Your task to perform on an android device: change notifications settings Image 0: 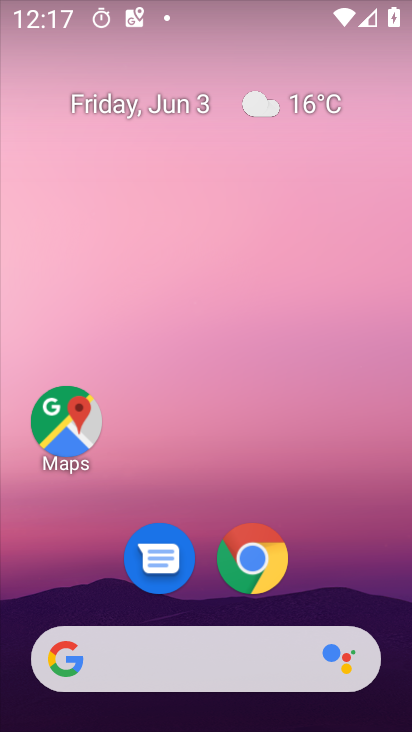
Step 0: drag from (344, 557) to (348, 268)
Your task to perform on an android device: change notifications settings Image 1: 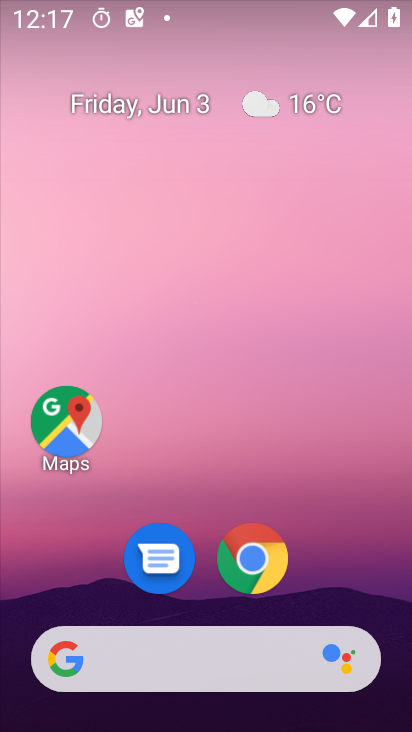
Step 1: drag from (349, 566) to (350, 248)
Your task to perform on an android device: change notifications settings Image 2: 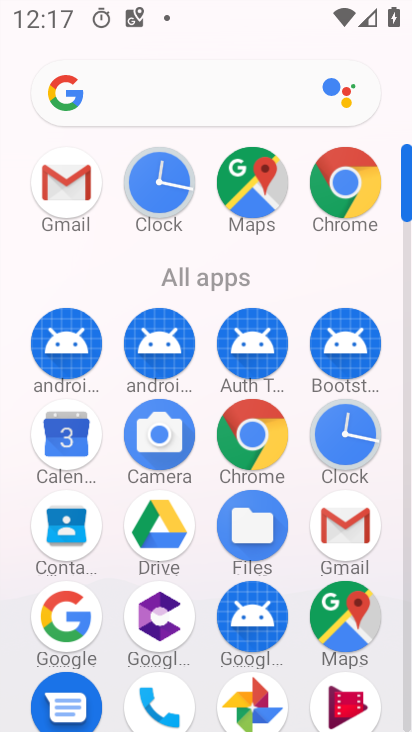
Step 2: drag from (297, 569) to (307, 305)
Your task to perform on an android device: change notifications settings Image 3: 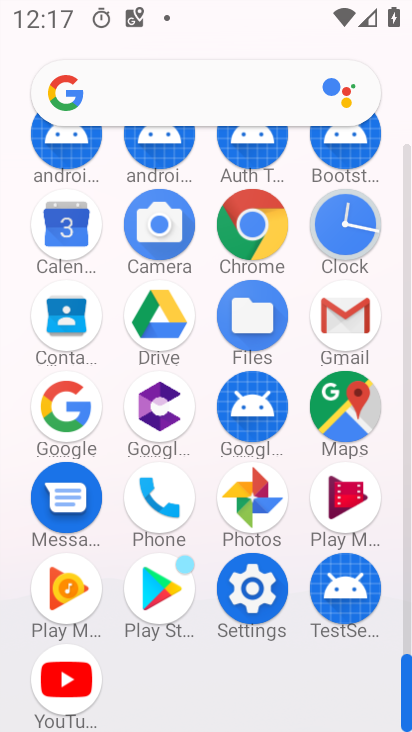
Step 3: click (254, 603)
Your task to perform on an android device: change notifications settings Image 4: 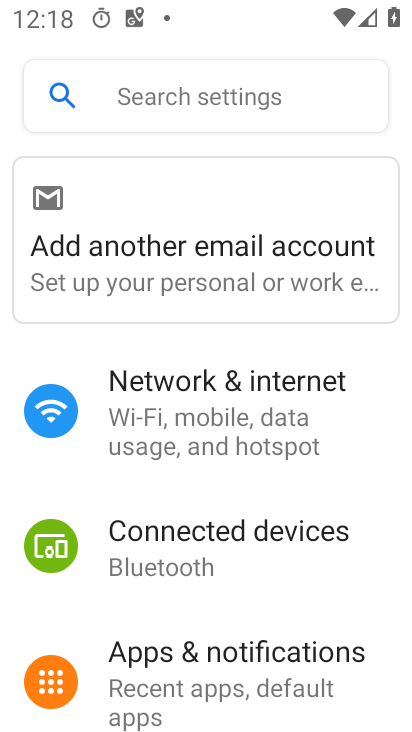
Step 4: drag from (360, 583) to (374, 450)
Your task to perform on an android device: change notifications settings Image 5: 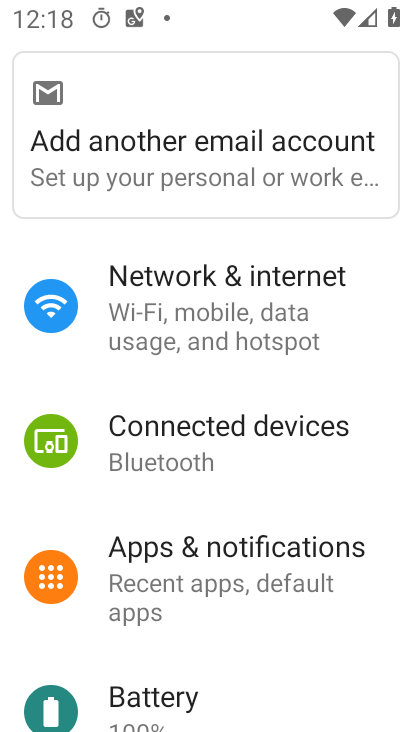
Step 5: drag from (340, 626) to (331, 461)
Your task to perform on an android device: change notifications settings Image 6: 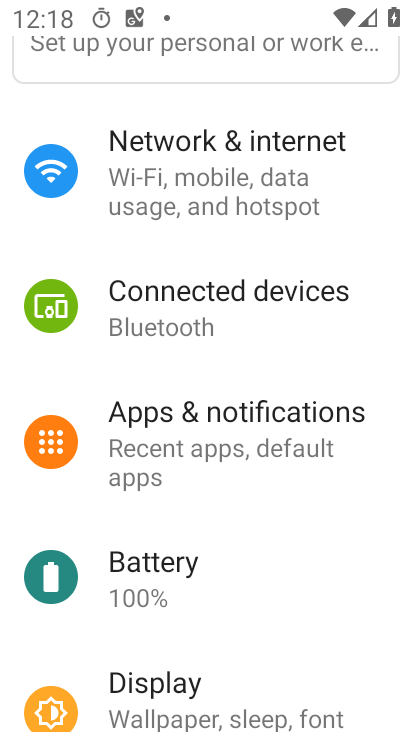
Step 6: click (272, 436)
Your task to perform on an android device: change notifications settings Image 7: 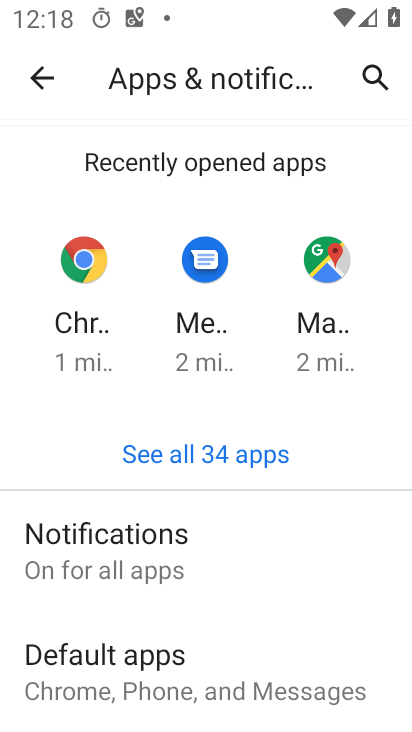
Step 7: click (167, 555)
Your task to perform on an android device: change notifications settings Image 8: 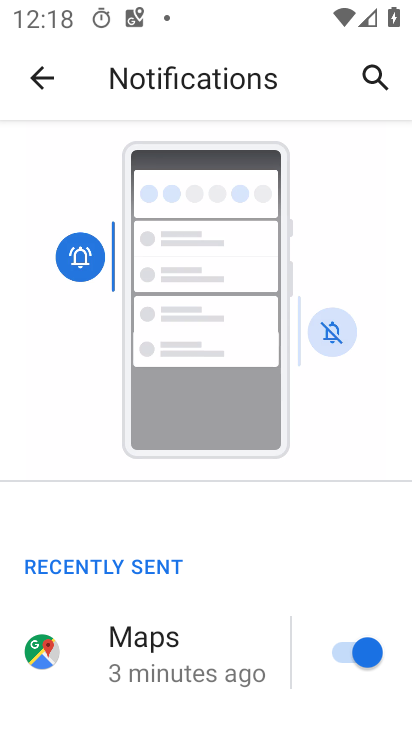
Step 8: drag from (284, 558) to (295, 351)
Your task to perform on an android device: change notifications settings Image 9: 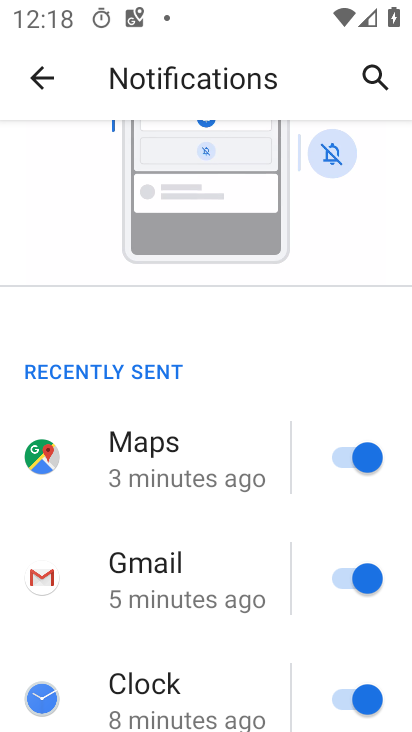
Step 9: drag from (264, 562) to (275, 341)
Your task to perform on an android device: change notifications settings Image 10: 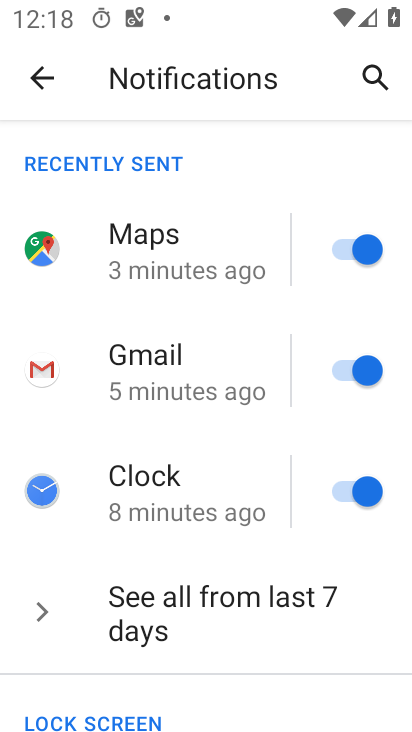
Step 10: click (373, 497)
Your task to perform on an android device: change notifications settings Image 11: 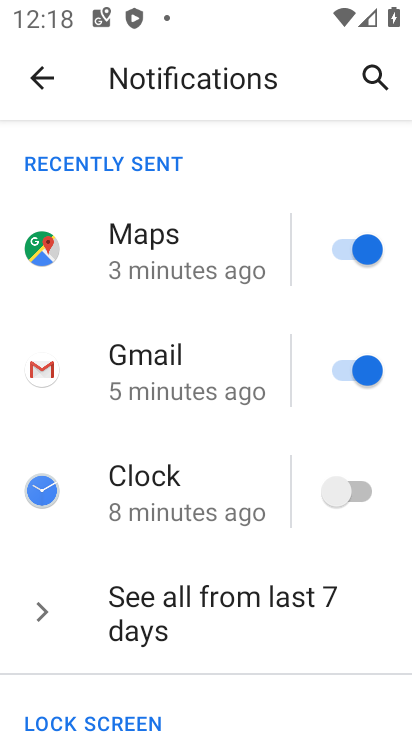
Step 11: click (363, 356)
Your task to perform on an android device: change notifications settings Image 12: 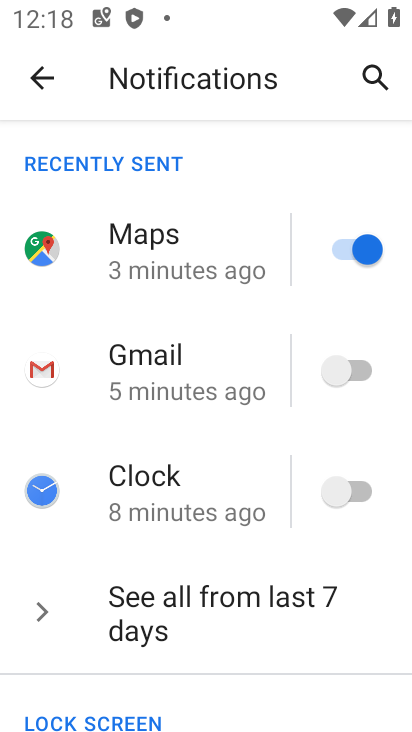
Step 12: click (362, 256)
Your task to perform on an android device: change notifications settings Image 13: 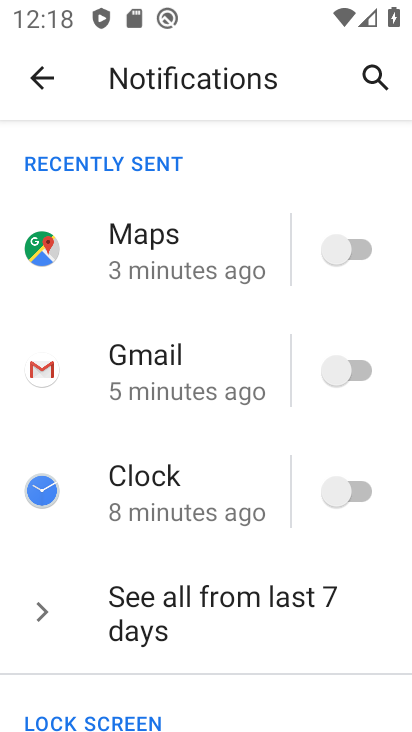
Step 13: task complete